Your task to perform on an android device: Open display settings Image 0: 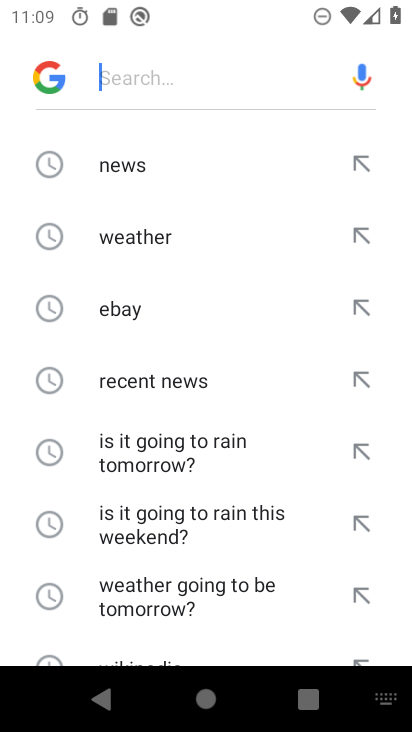
Step 0: press home button
Your task to perform on an android device: Open display settings Image 1: 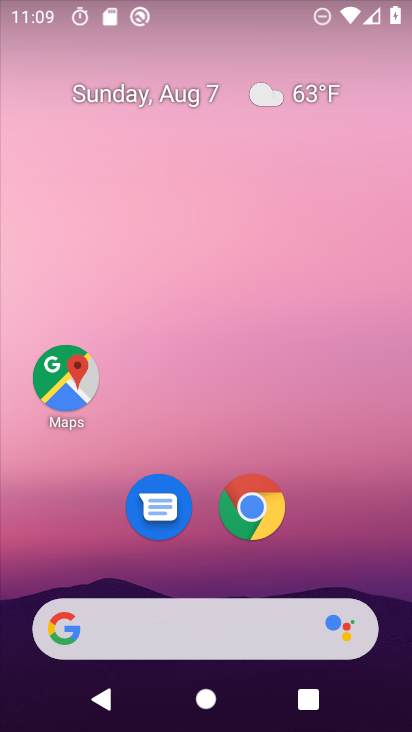
Step 1: drag from (343, 479) to (289, 26)
Your task to perform on an android device: Open display settings Image 2: 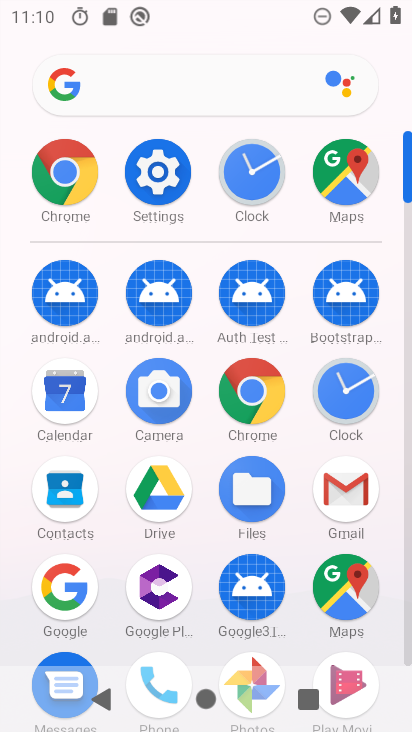
Step 2: click (153, 169)
Your task to perform on an android device: Open display settings Image 3: 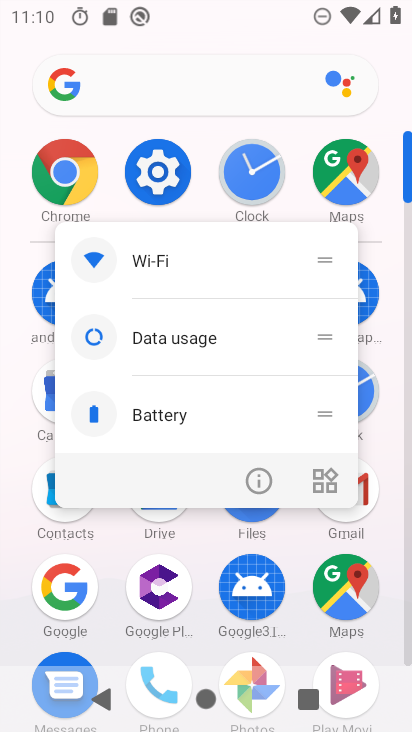
Step 3: click (158, 168)
Your task to perform on an android device: Open display settings Image 4: 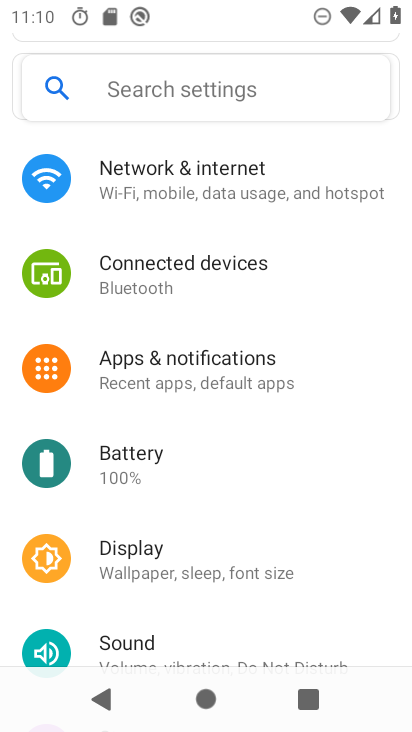
Step 4: click (137, 553)
Your task to perform on an android device: Open display settings Image 5: 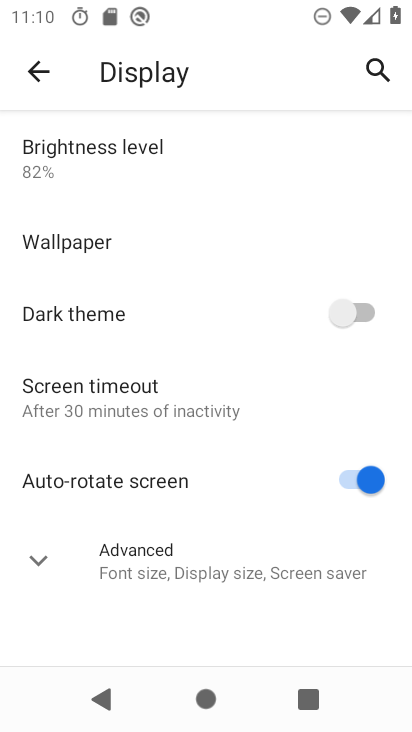
Step 5: task complete